Your task to perform on an android device: change text size in settings app Image 0: 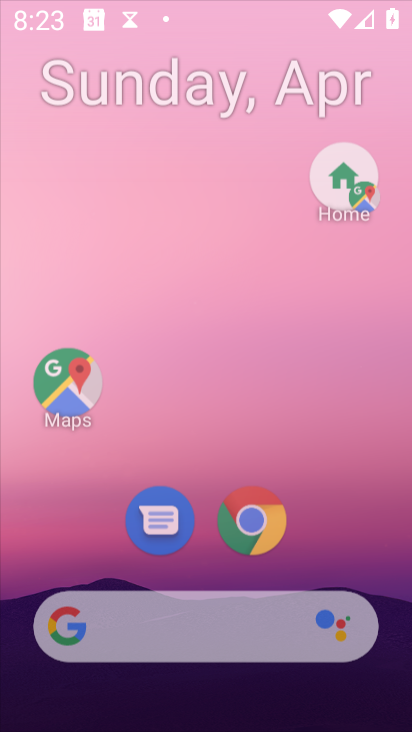
Step 0: click (288, 216)
Your task to perform on an android device: change text size in settings app Image 1: 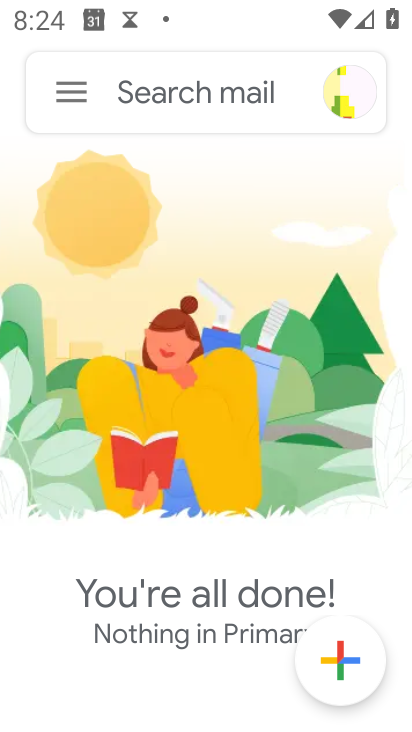
Step 1: press home button
Your task to perform on an android device: change text size in settings app Image 2: 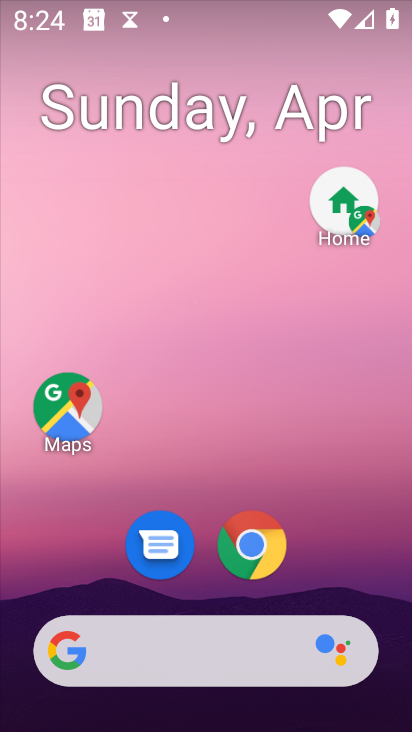
Step 2: drag from (333, 531) to (244, 123)
Your task to perform on an android device: change text size in settings app Image 3: 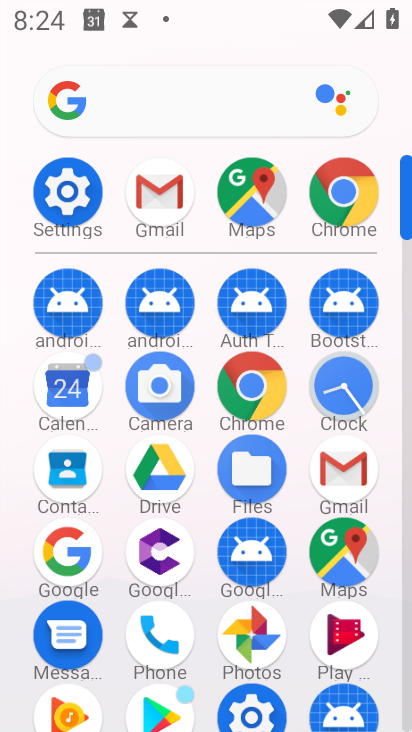
Step 3: click (70, 188)
Your task to perform on an android device: change text size in settings app Image 4: 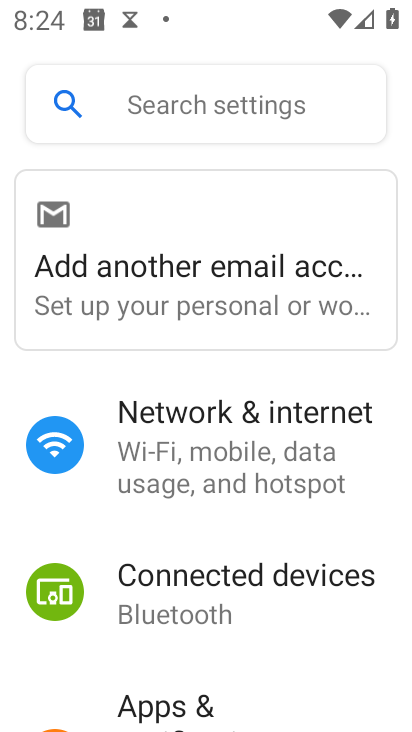
Step 4: drag from (181, 657) to (206, 121)
Your task to perform on an android device: change text size in settings app Image 5: 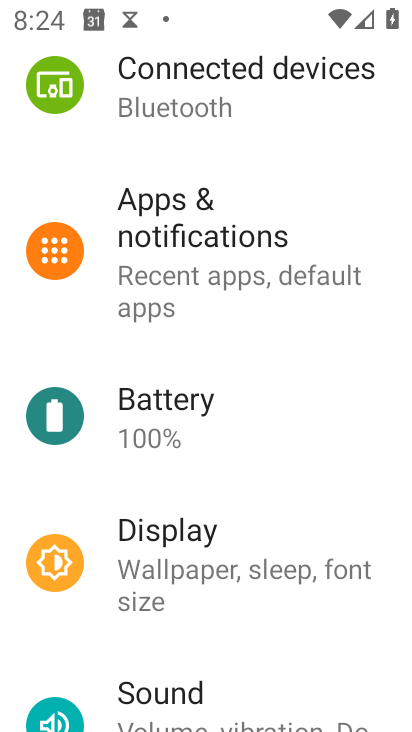
Step 5: drag from (182, 589) to (230, 113)
Your task to perform on an android device: change text size in settings app Image 6: 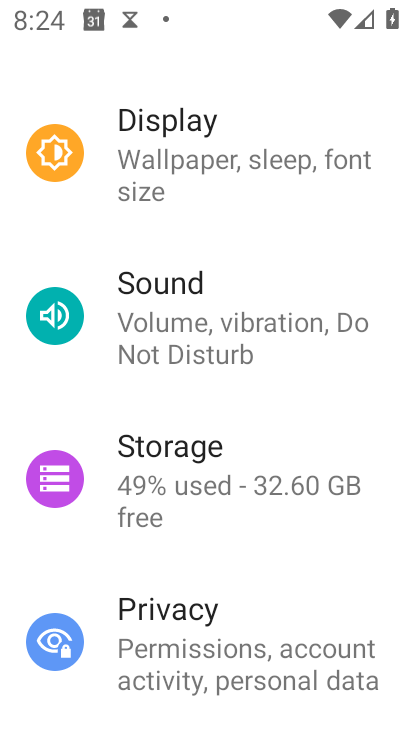
Step 6: drag from (213, 669) to (247, 154)
Your task to perform on an android device: change text size in settings app Image 7: 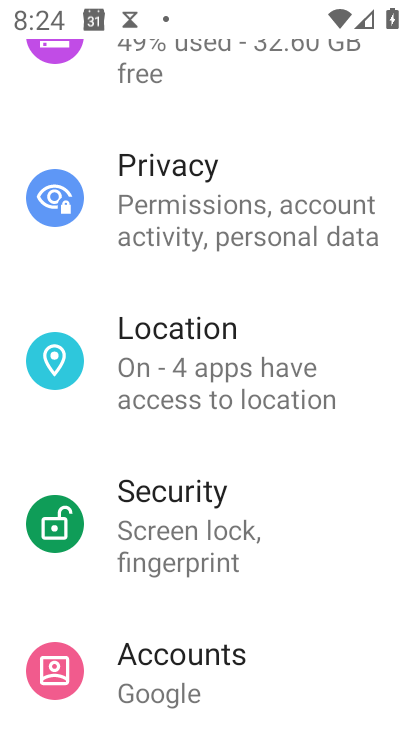
Step 7: drag from (195, 640) to (278, 160)
Your task to perform on an android device: change text size in settings app Image 8: 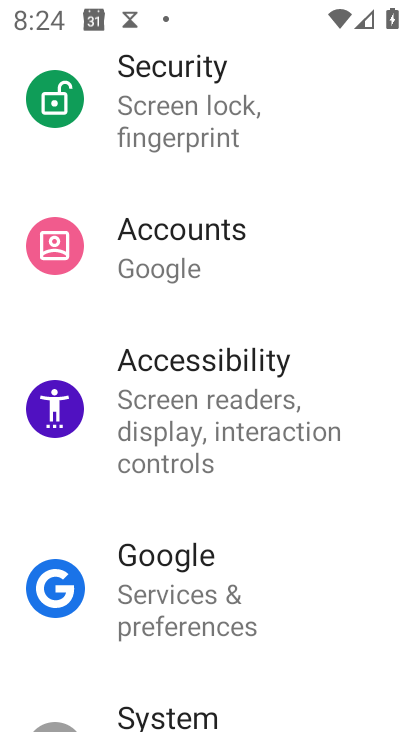
Step 8: click (215, 422)
Your task to perform on an android device: change text size in settings app Image 9: 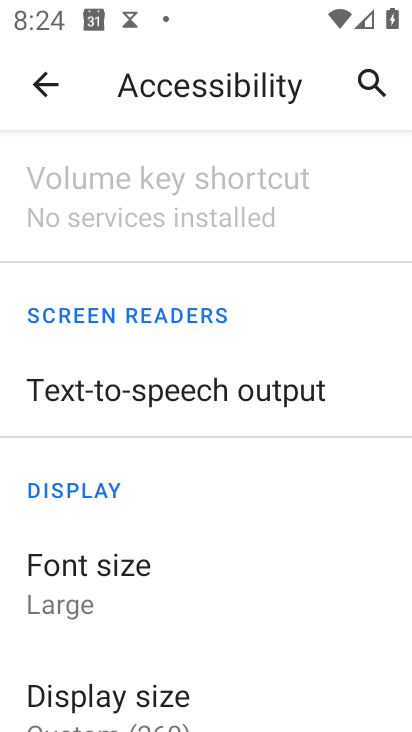
Step 9: click (112, 583)
Your task to perform on an android device: change text size in settings app Image 10: 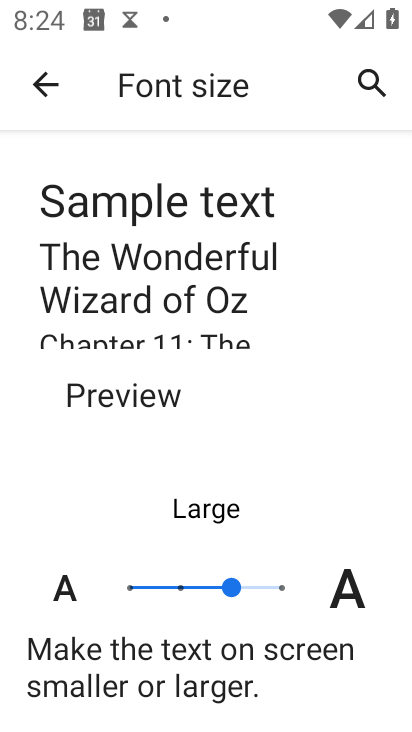
Step 10: click (172, 583)
Your task to perform on an android device: change text size in settings app Image 11: 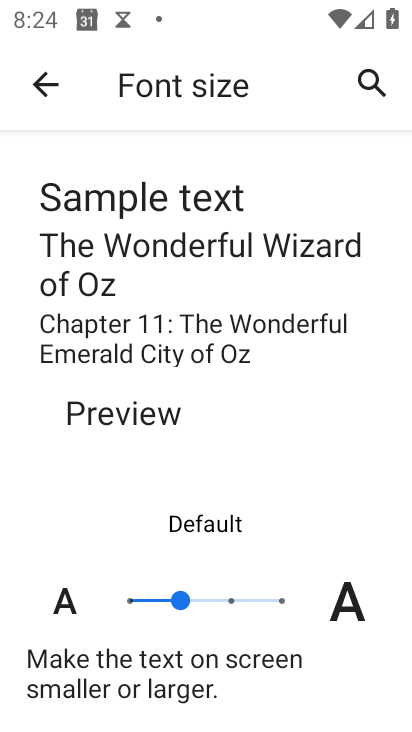
Step 11: task complete